Your task to perform on an android device: Open sound settings Image 0: 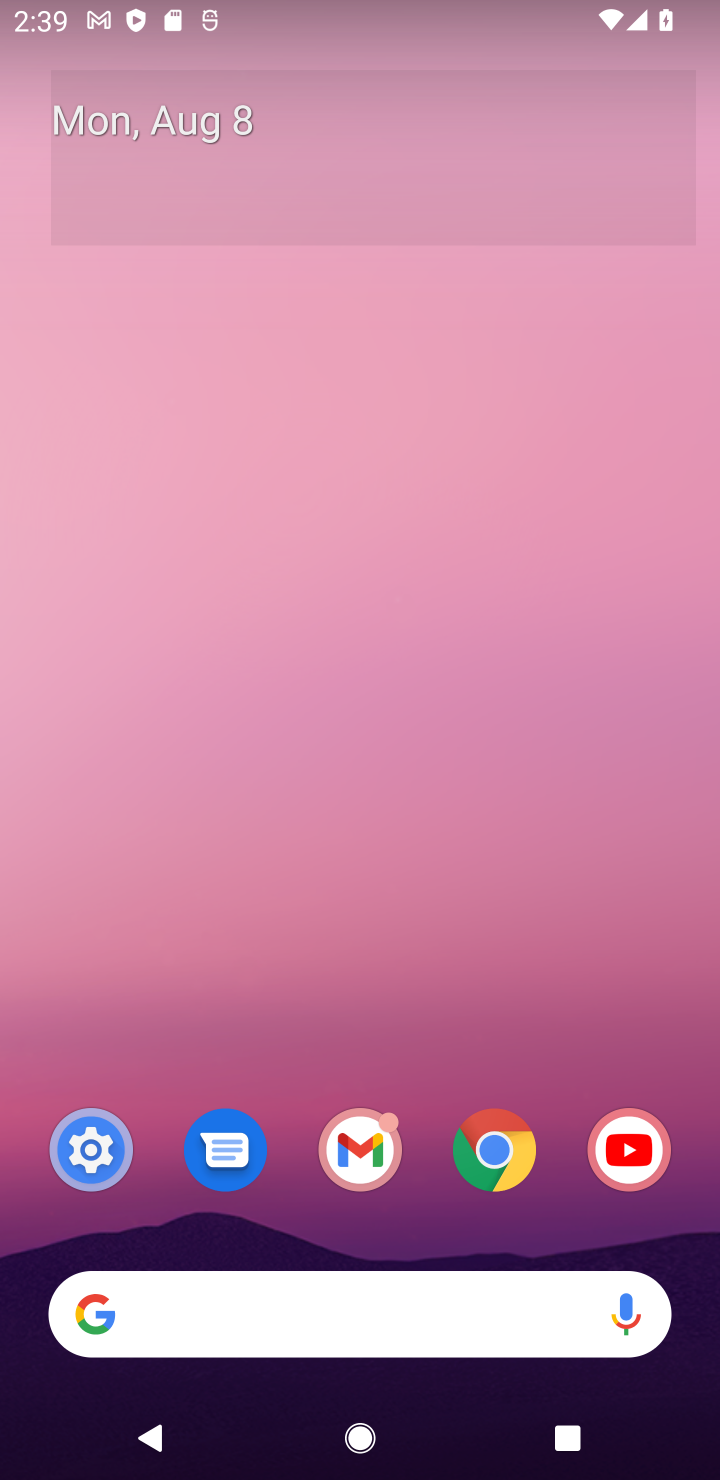
Step 0: click (108, 1170)
Your task to perform on an android device: Open sound settings Image 1: 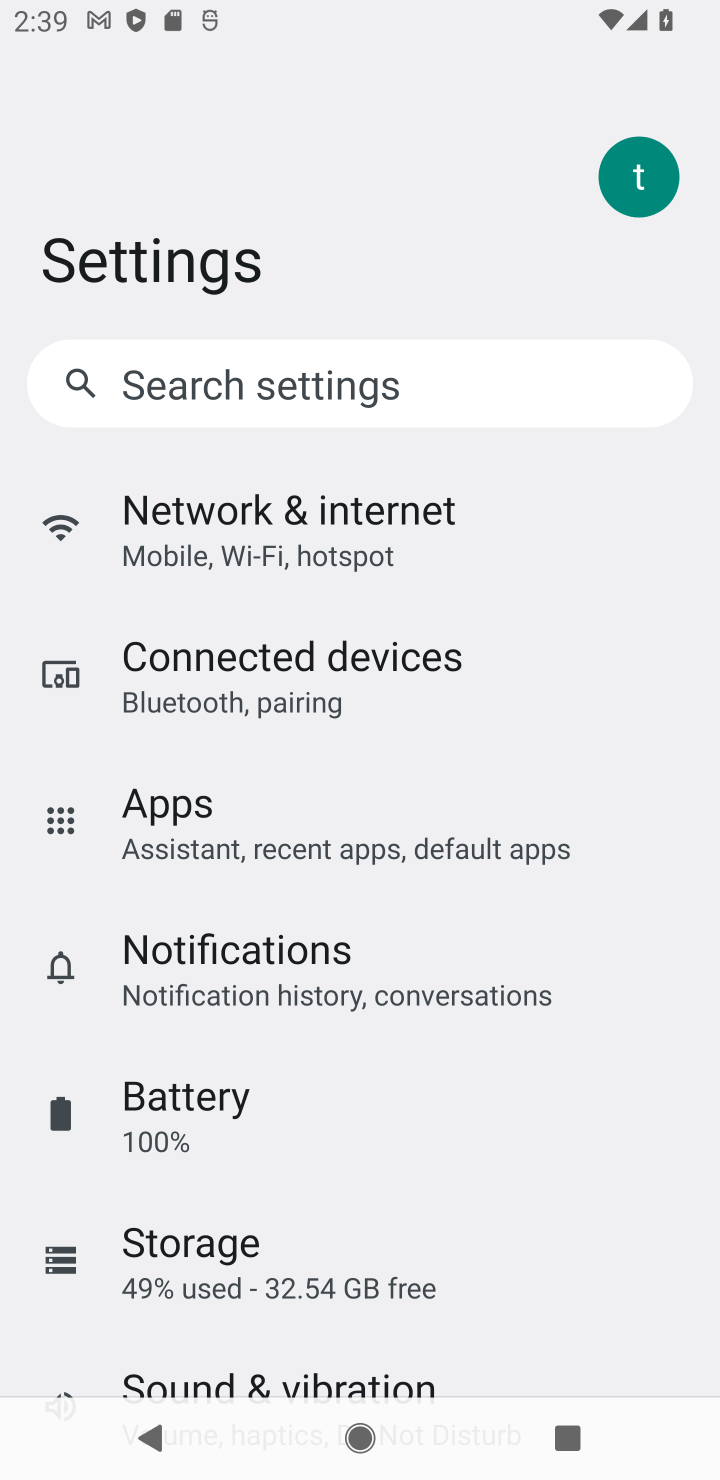
Step 1: click (179, 1375)
Your task to perform on an android device: Open sound settings Image 2: 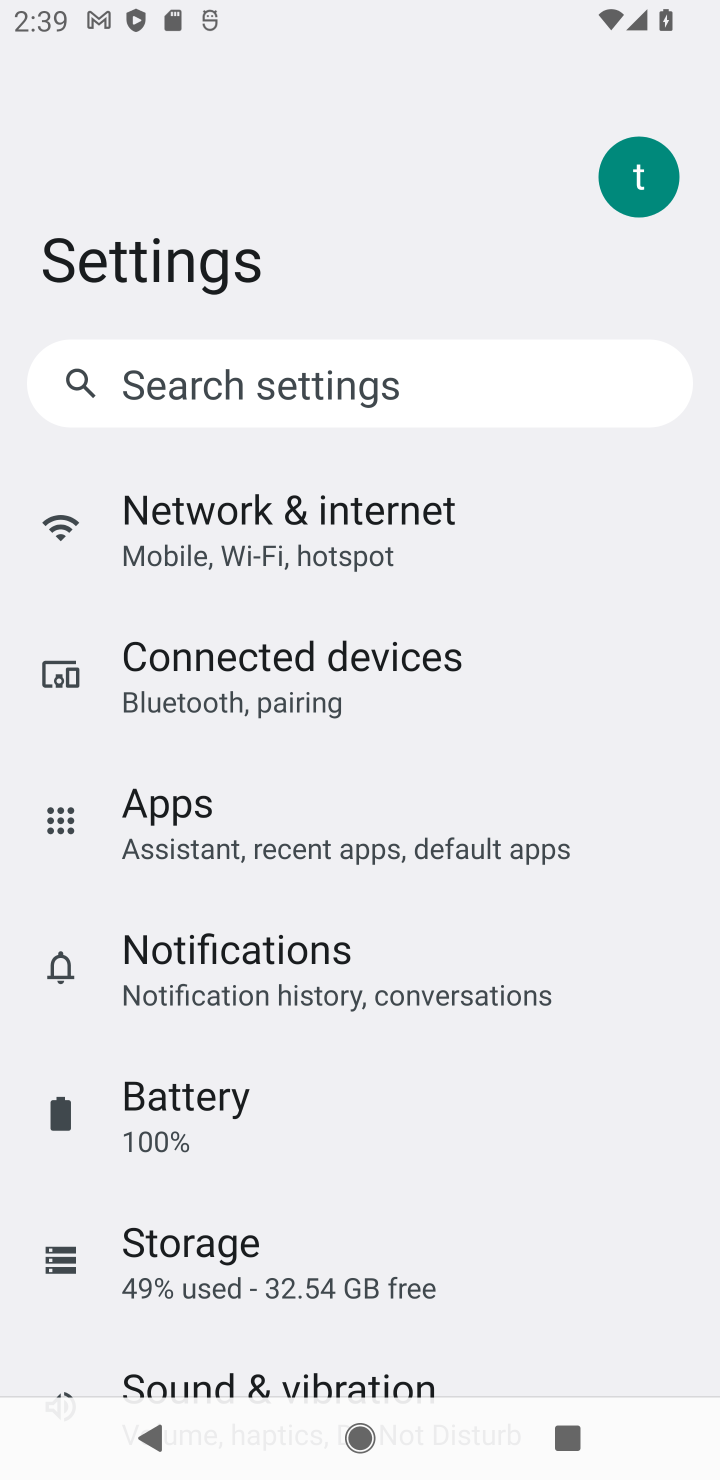
Step 2: task complete